Your task to perform on an android device: empty trash in the gmail app Image 0: 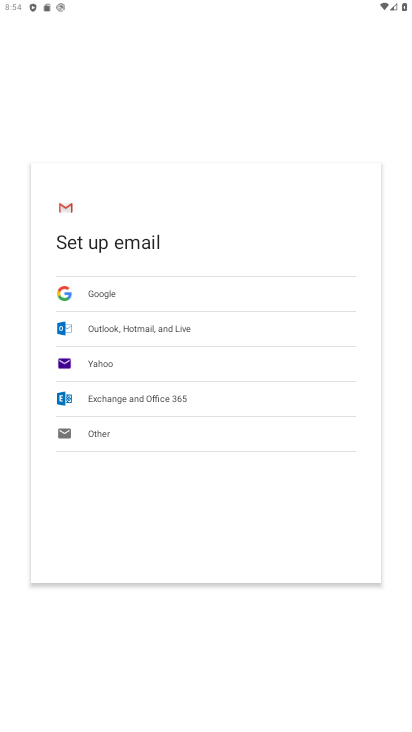
Step 0: drag from (259, 562) to (192, 668)
Your task to perform on an android device: empty trash in the gmail app Image 1: 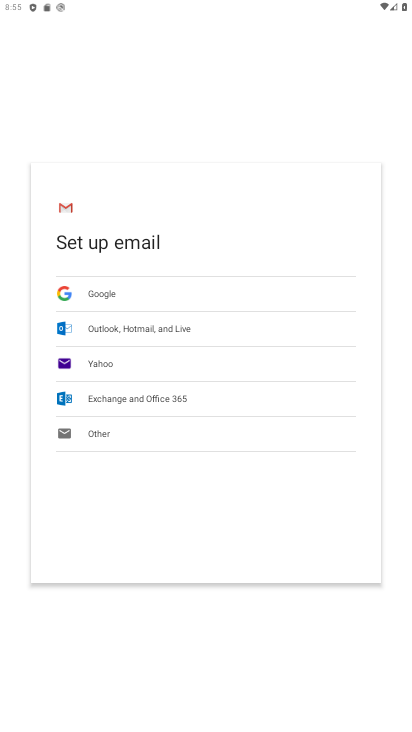
Step 1: press home button
Your task to perform on an android device: empty trash in the gmail app Image 2: 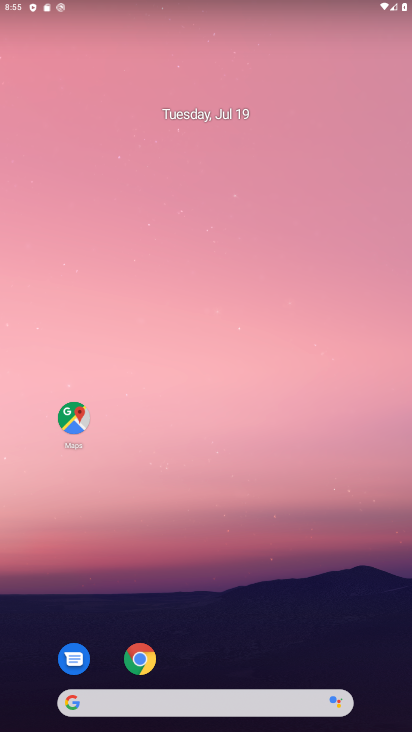
Step 2: drag from (180, 622) to (332, 185)
Your task to perform on an android device: empty trash in the gmail app Image 3: 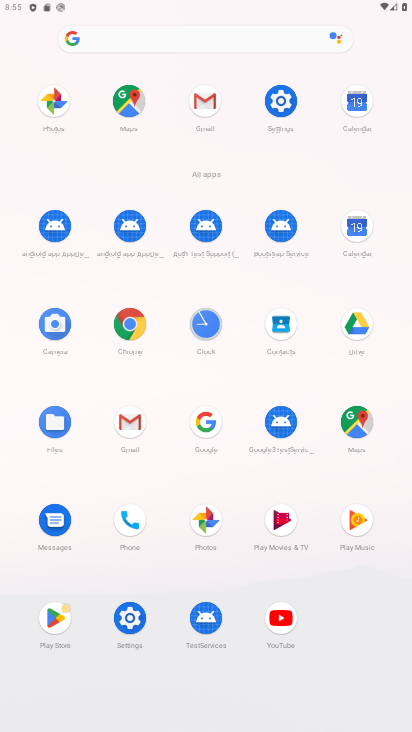
Step 3: click (202, 92)
Your task to perform on an android device: empty trash in the gmail app Image 4: 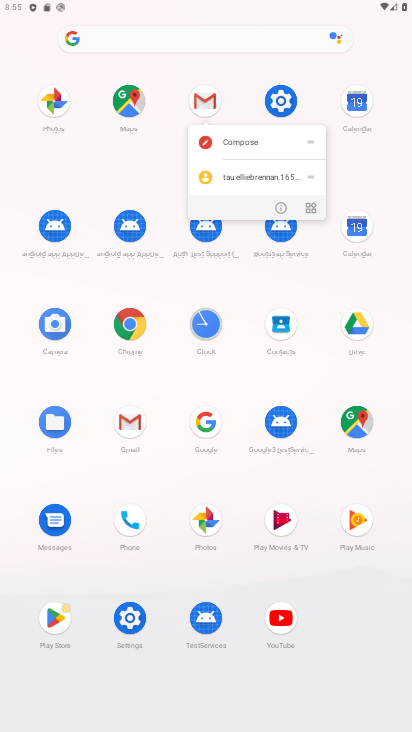
Step 4: click (276, 204)
Your task to perform on an android device: empty trash in the gmail app Image 5: 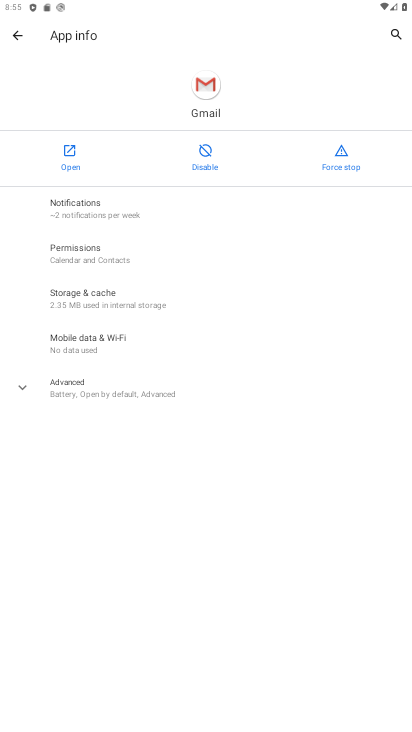
Step 5: click (56, 155)
Your task to perform on an android device: empty trash in the gmail app Image 6: 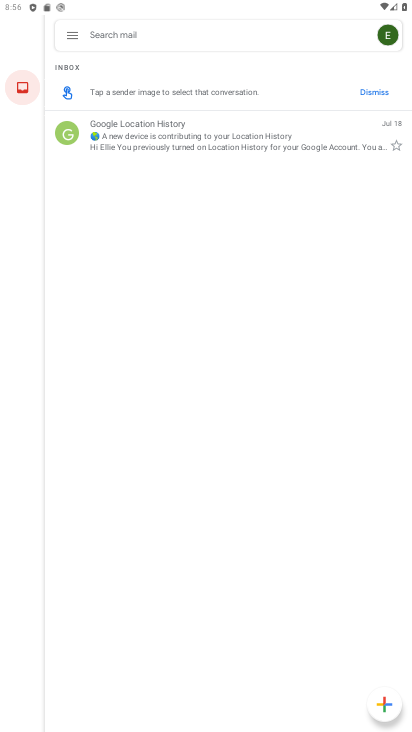
Step 6: drag from (138, 471) to (190, 276)
Your task to perform on an android device: empty trash in the gmail app Image 7: 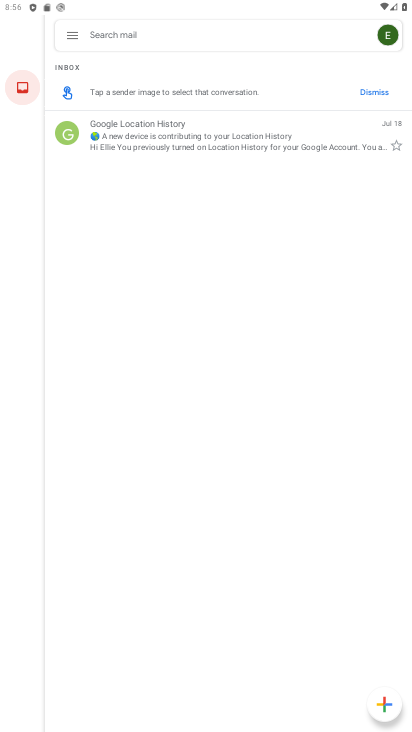
Step 7: click (66, 43)
Your task to perform on an android device: empty trash in the gmail app Image 8: 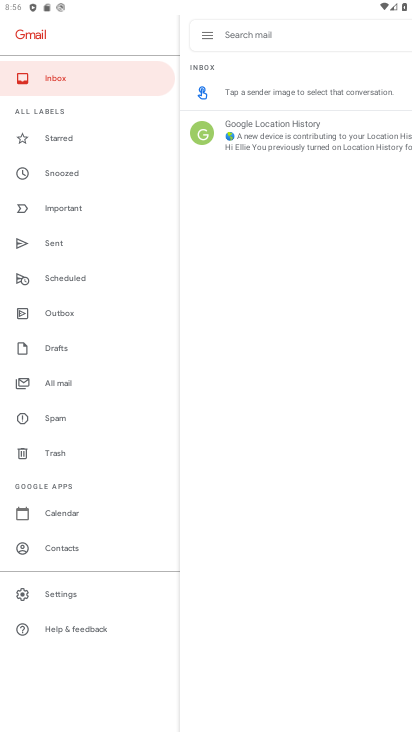
Step 8: click (65, 447)
Your task to perform on an android device: empty trash in the gmail app Image 9: 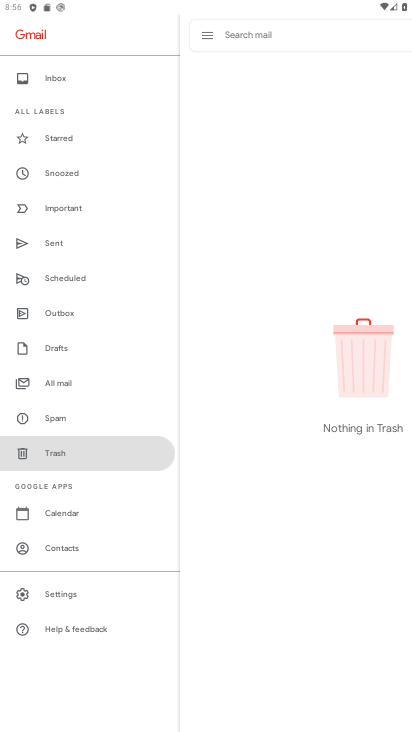
Step 9: click (86, 454)
Your task to perform on an android device: empty trash in the gmail app Image 10: 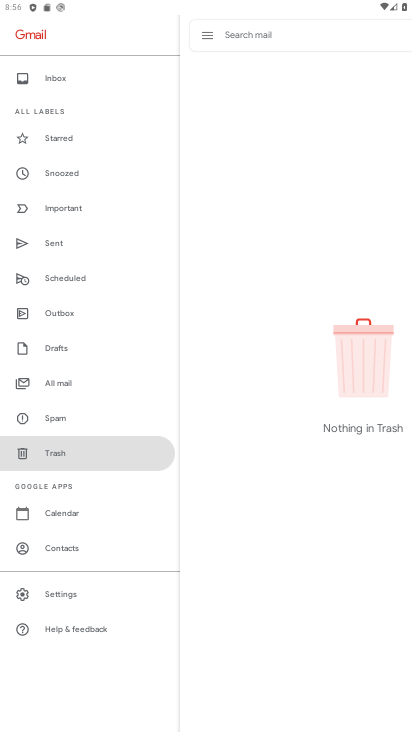
Step 10: task complete